Your task to perform on an android device: turn off location Image 0: 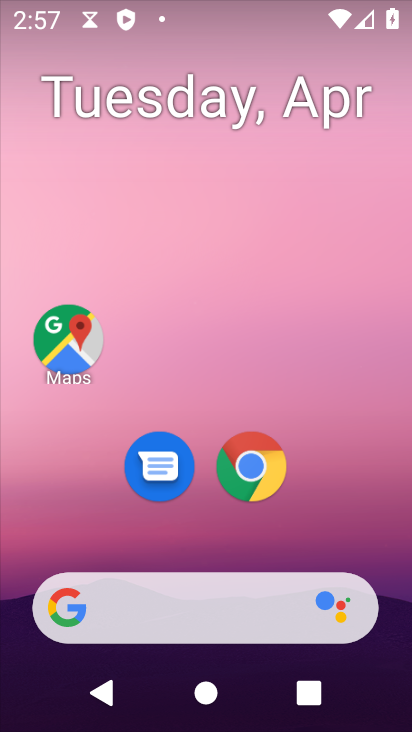
Step 0: drag from (372, 516) to (186, 15)
Your task to perform on an android device: turn off location Image 1: 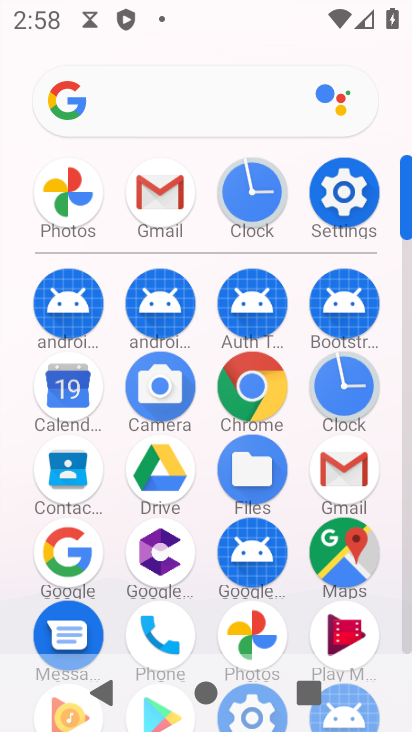
Step 1: click (343, 190)
Your task to perform on an android device: turn off location Image 2: 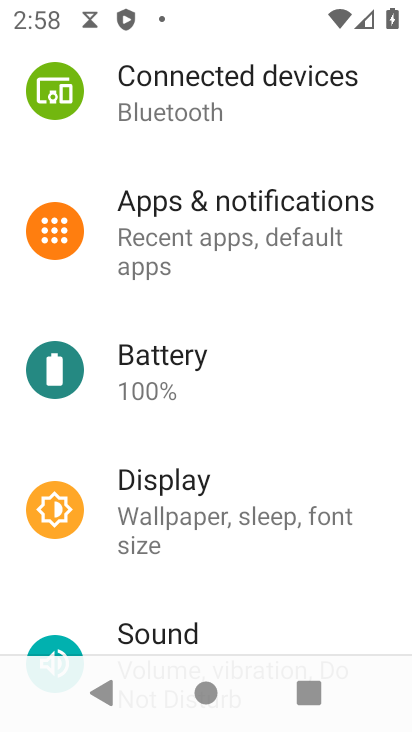
Step 2: drag from (255, 294) to (244, 539)
Your task to perform on an android device: turn off location Image 3: 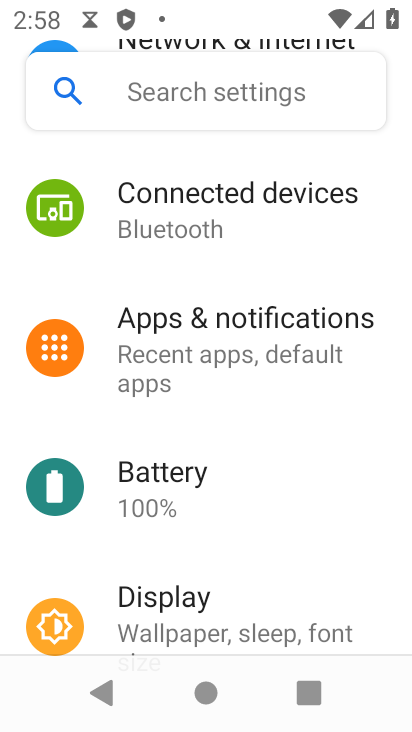
Step 3: drag from (244, 225) to (233, 533)
Your task to perform on an android device: turn off location Image 4: 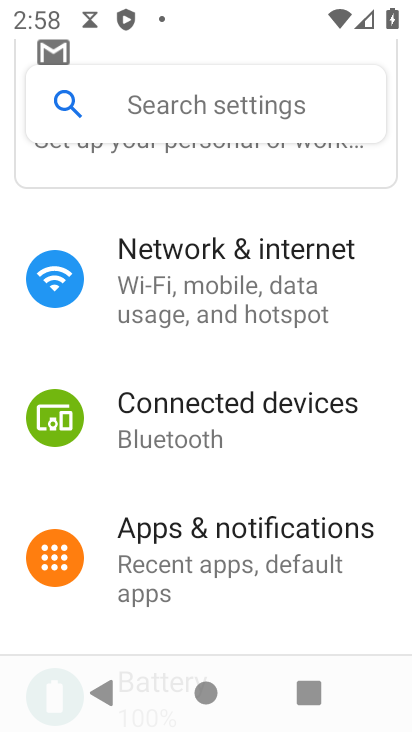
Step 4: drag from (305, 597) to (288, 241)
Your task to perform on an android device: turn off location Image 5: 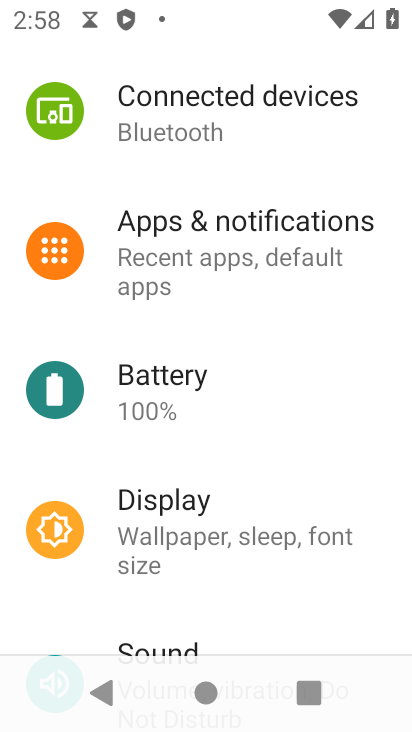
Step 5: drag from (257, 550) to (237, 65)
Your task to perform on an android device: turn off location Image 6: 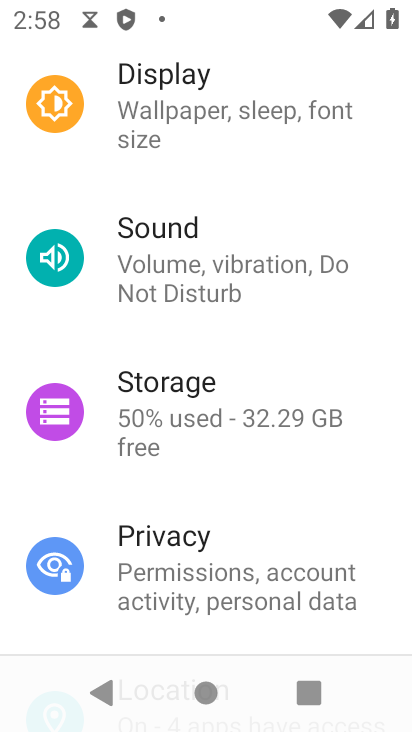
Step 6: drag from (221, 553) to (221, 91)
Your task to perform on an android device: turn off location Image 7: 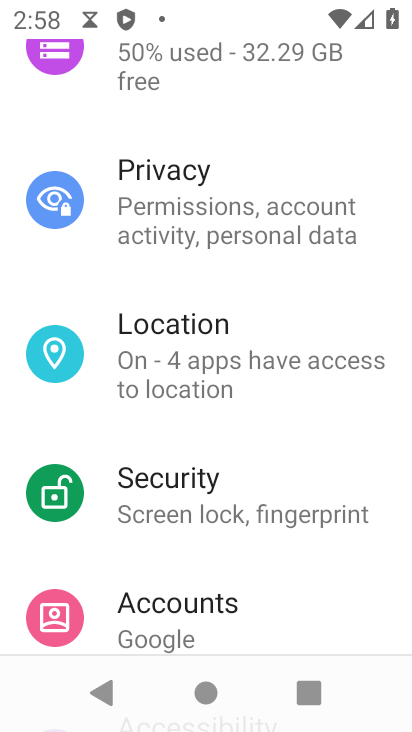
Step 7: click (191, 337)
Your task to perform on an android device: turn off location Image 8: 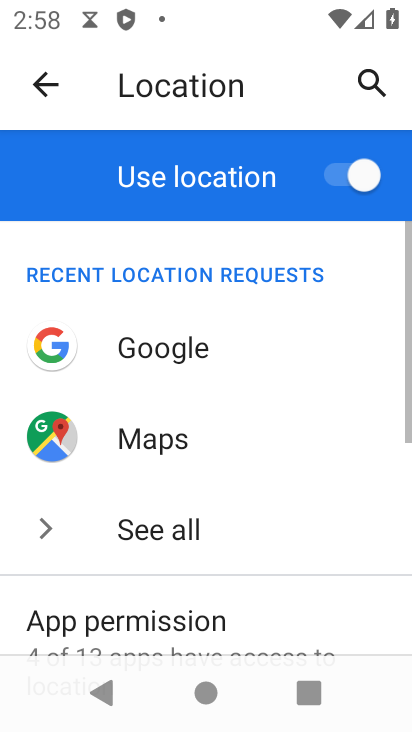
Step 8: click (332, 167)
Your task to perform on an android device: turn off location Image 9: 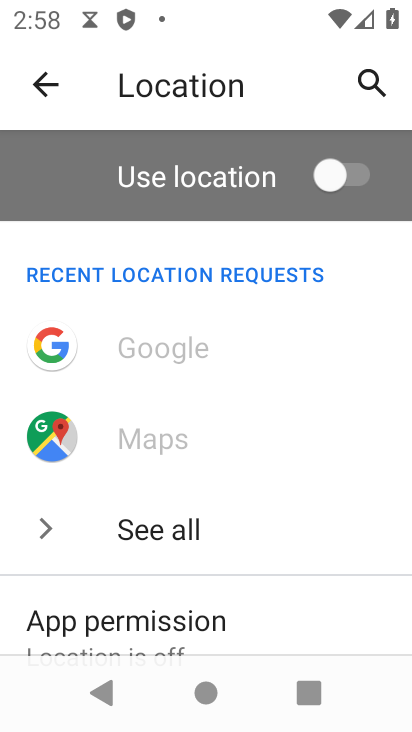
Step 9: task complete